Your task to perform on an android device: Clear the cart on ebay. Image 0: 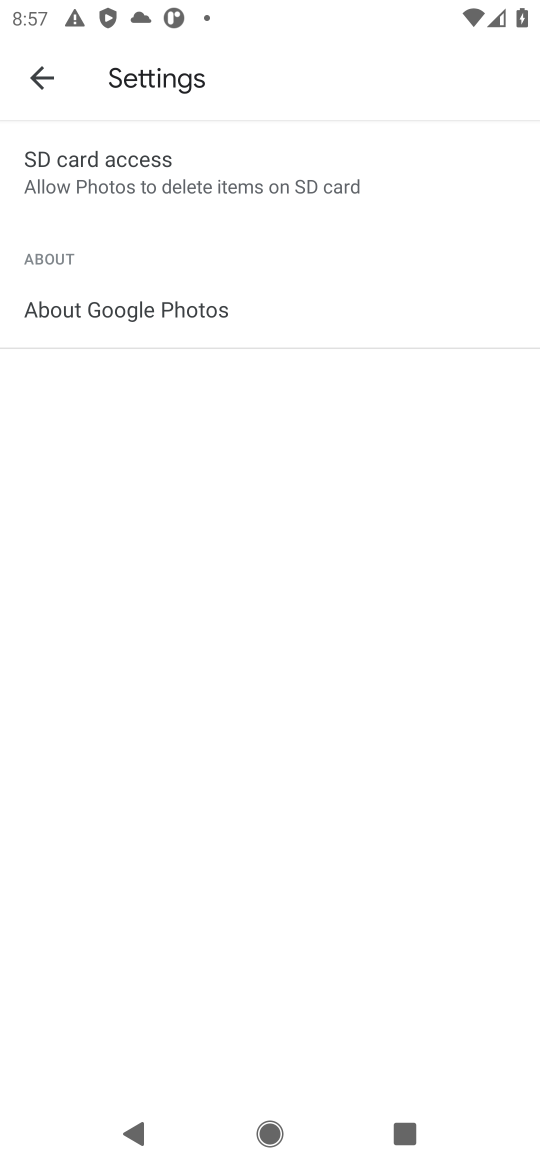
Step 0: press home button
Your task to perform on an android device: Clear the cart on ebay. Image 1: 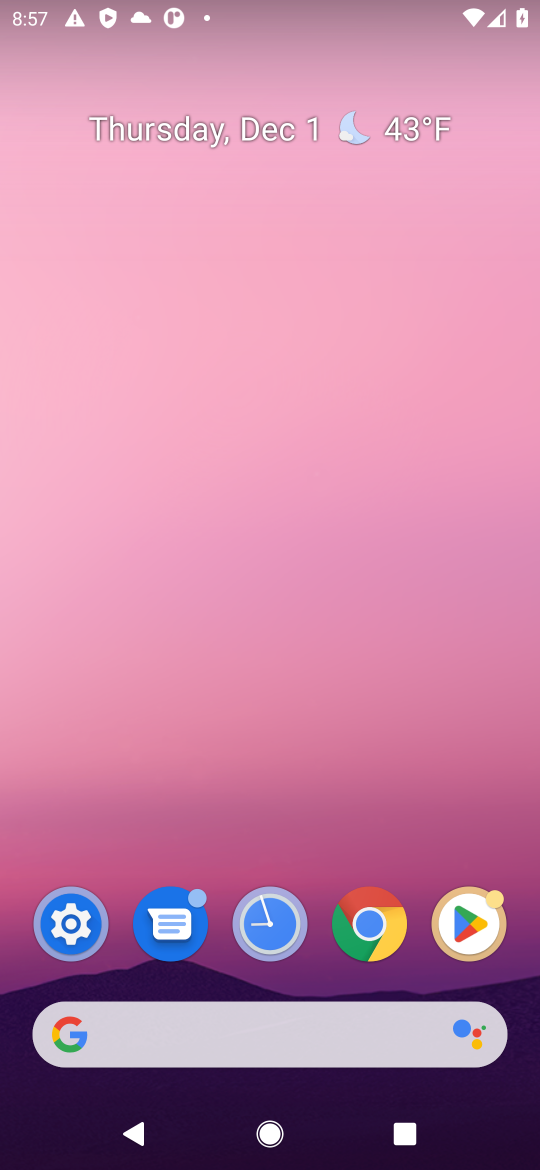
Step 1: click (326, 1036)
Your task to perform on an android device: Clear the cart on ebay. Image 2: 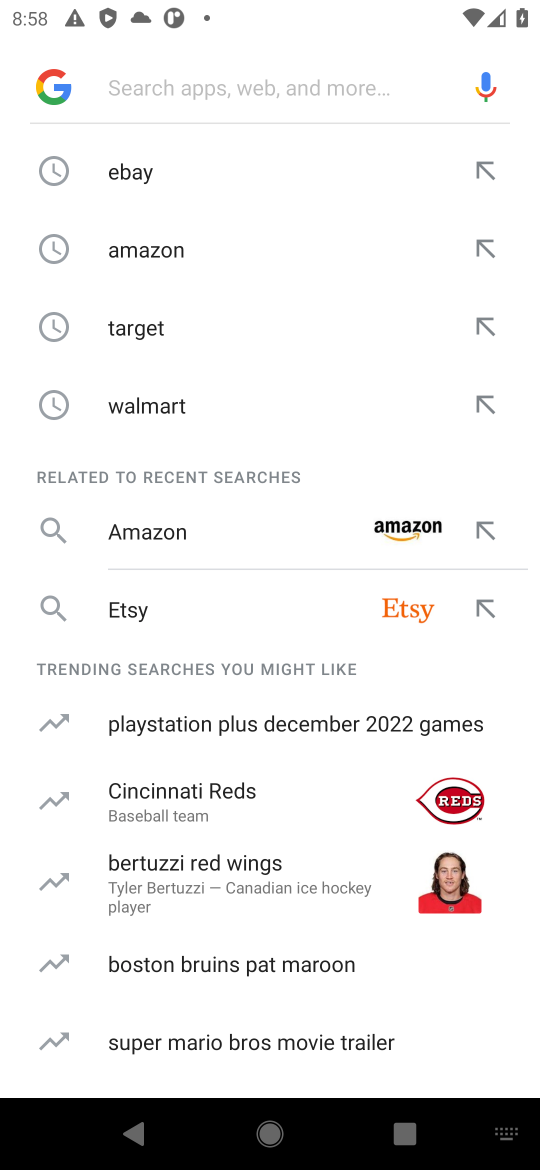
Step 2: click (171, 178)
Your task to perform on an android device: Clear the cart on ebay. Image 3: 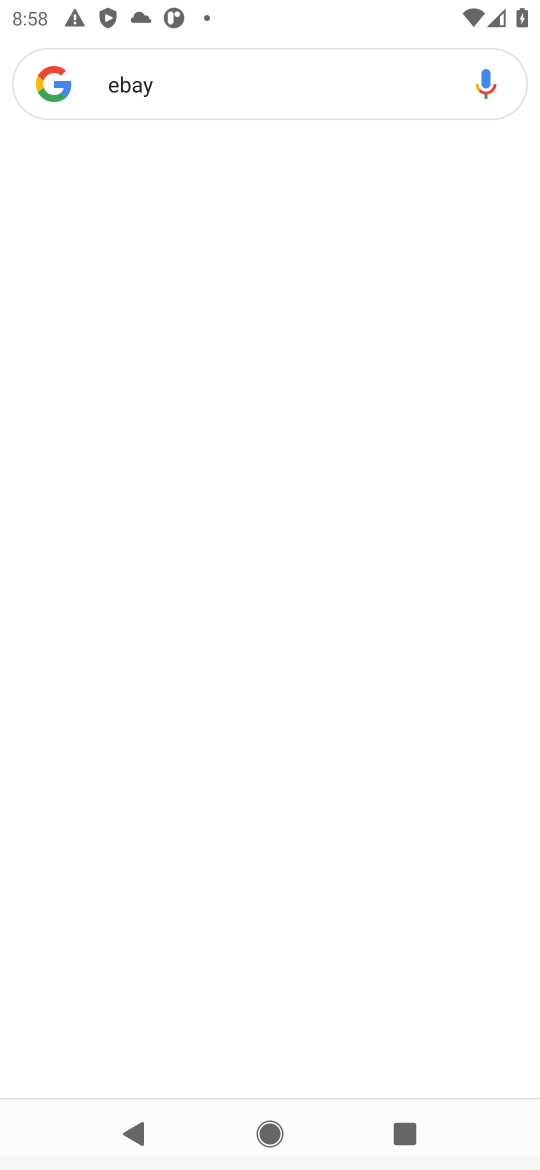
Step 3: task complete